Your task to perform on an android device: Open the web browser Image 0: 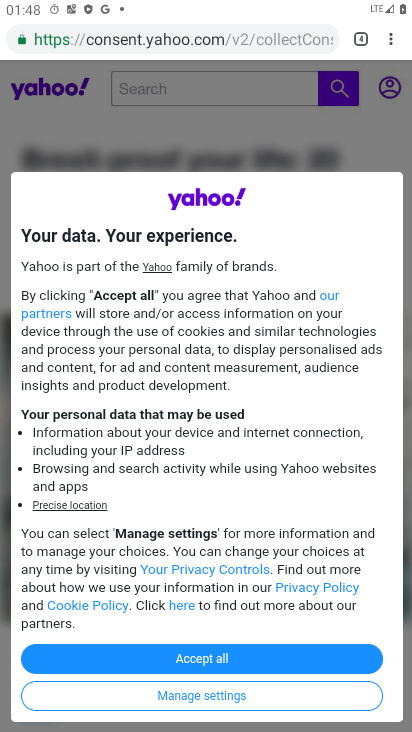
Step 0: press home button
Your task to perform on an android device: Open the web browser Image 1: 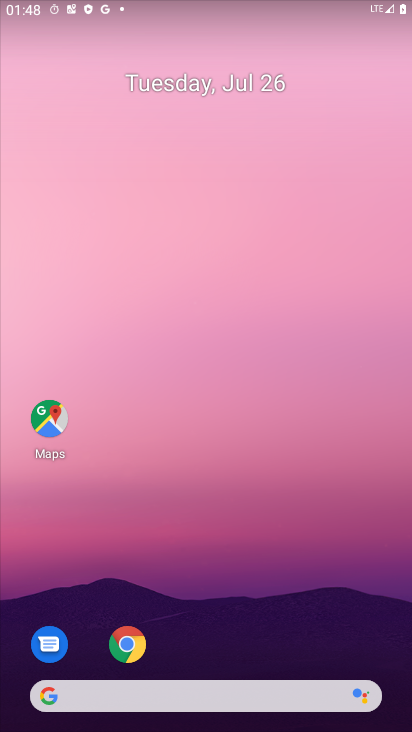
Step 1: click (123, 650)
Your task to perform on an android device: Open the web browser Image 2: 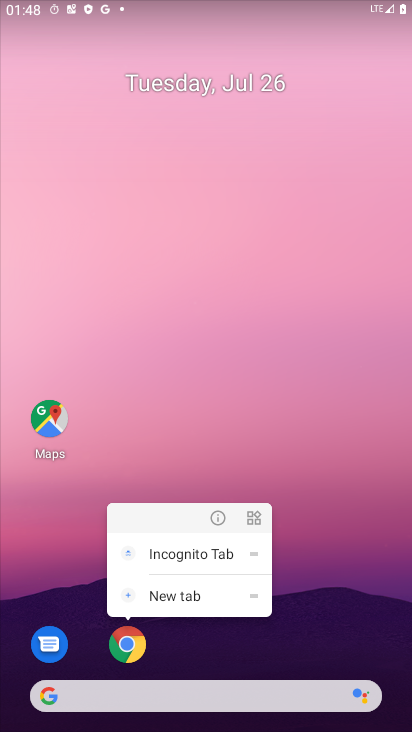
Step 2: click (125, 650)
Your task to perform on an android device: Open the web browser Image 3: 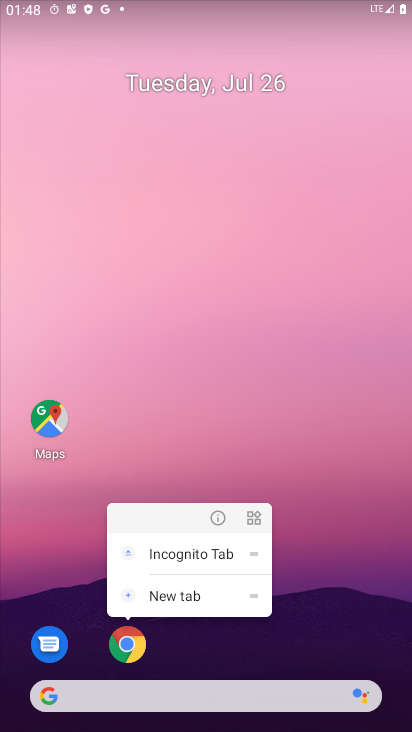
Step 3: click (132, 645)
Your task to perform on an android device: Open the web browser Image 4: 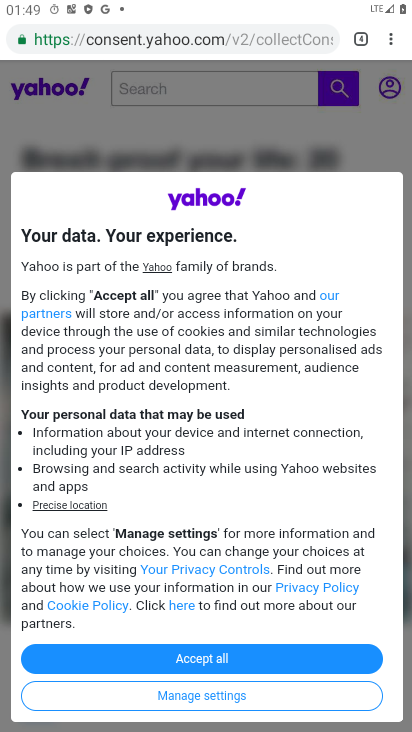
Step 4: task complete